Your task to perform on an android device: open app "Facebook Lite" Image 0: 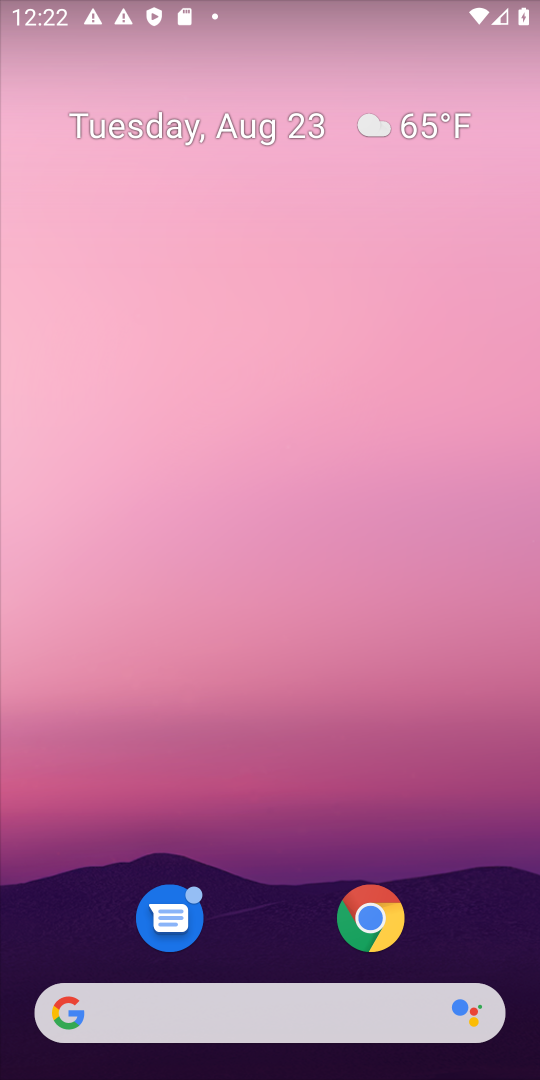
Step 0: press home button
Your task to perform on an android device: open app "Facebook Lite" Image 1: 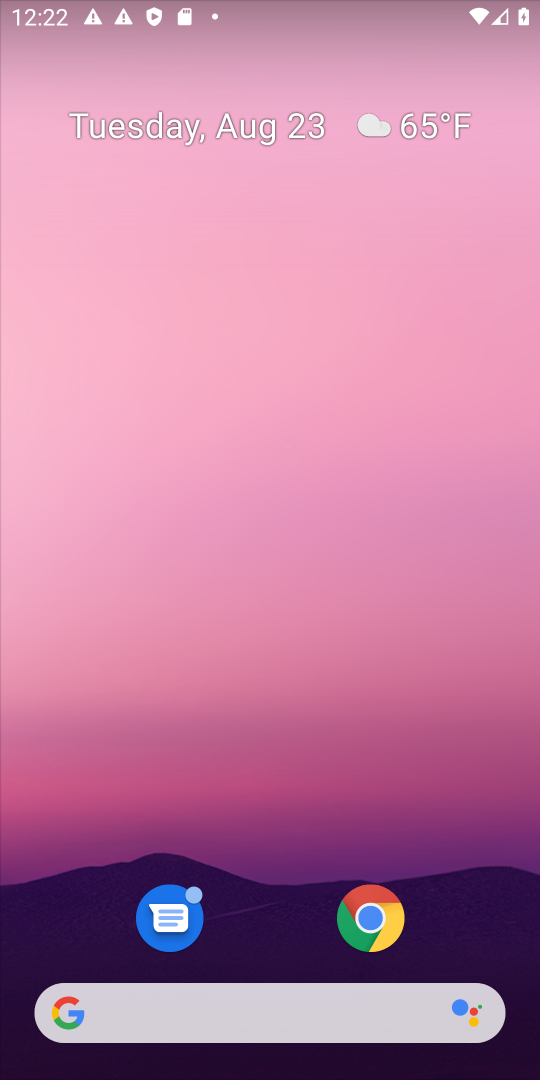
Step 1: drag from (331, 560) to (373, 11)
Your task to perform on an android device: open app "Facebook Lite" Image 2: 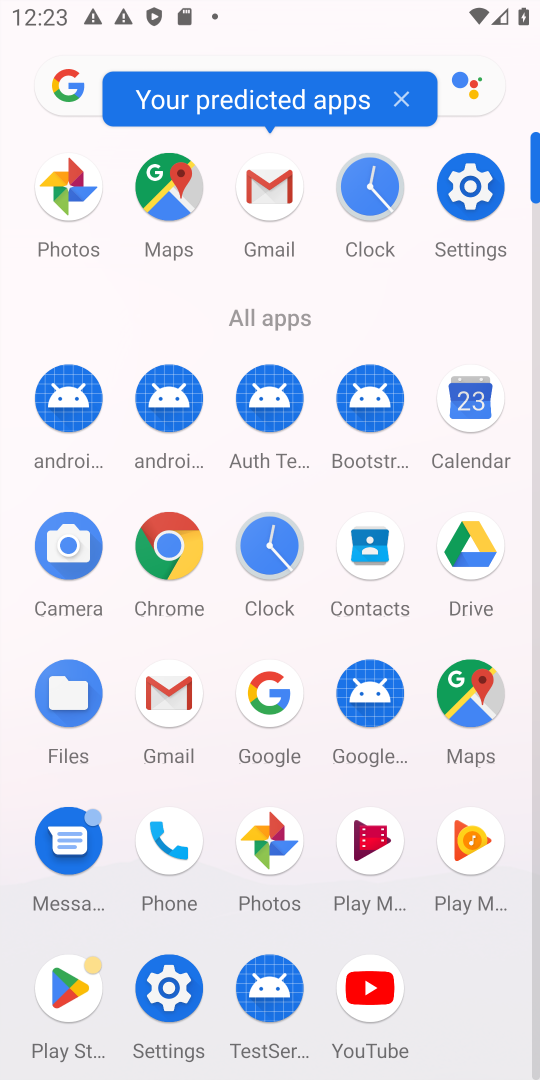
Step 2: click (71, 978)
Your task to perform on an android device: open app "Facebook Lite" Image 3: 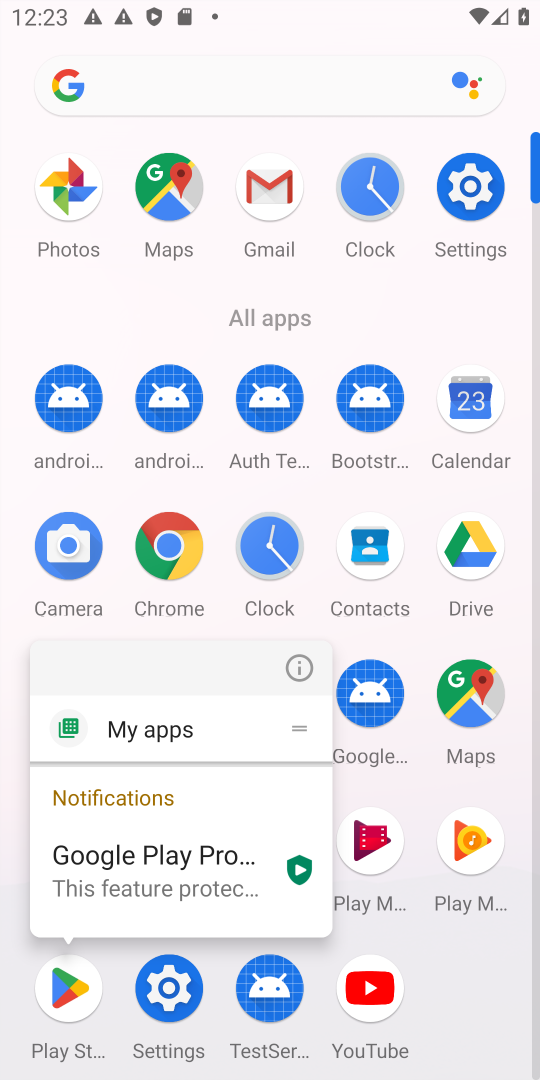
Step 3: click (64, 976)
Your task to perform on an android device: open app "Facebook Lite" Image 4: 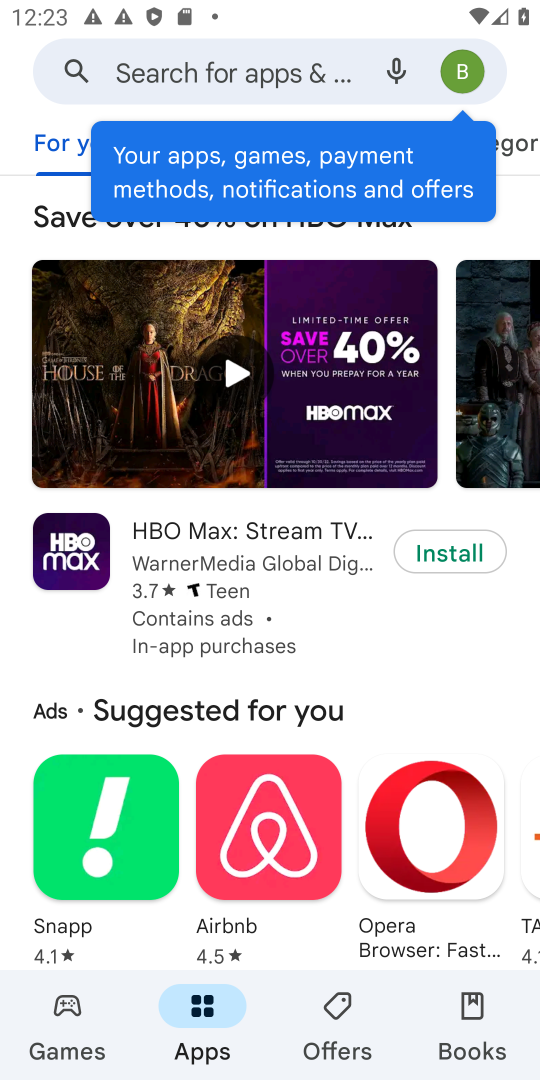
Step 4: click (204, 70)
Your task to perform on an android device: open app "Facebook Lite" Image 5: 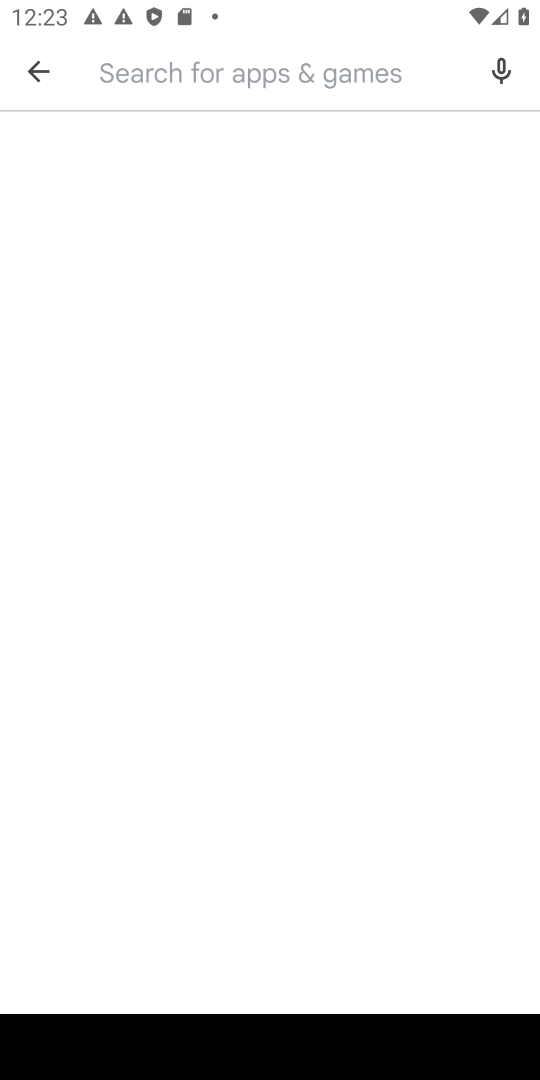
Step 5: type "Facebook Lite"
Your task to perform on an android device: open app "Facebook Lite" Image 6: 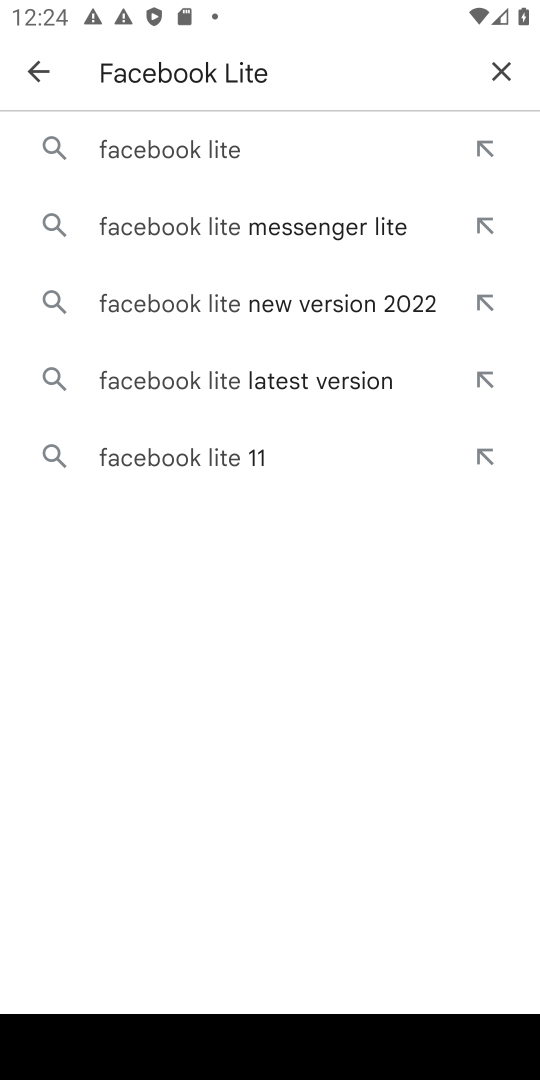
Step 6: click (264, 152)
Your task to perform on an android device: open app "Facebook Lite" Image 7: 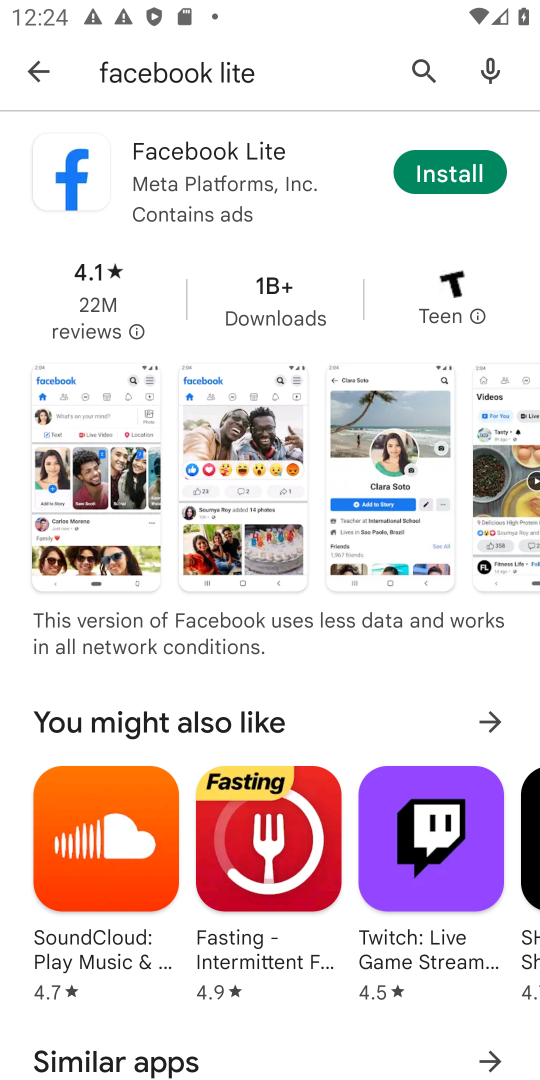
Step 7: task complete